Your task to perform on an android device: open app "Walmart Shopping & Grocery" Image 0: 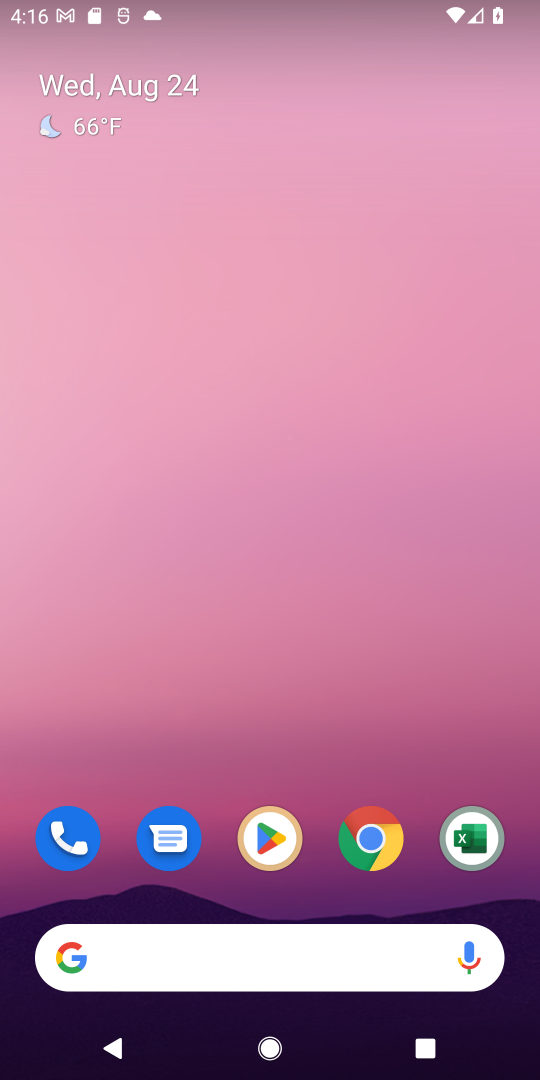
Step 0: press home button
Your task to perform on an android device: open app "Walmart Shopping & Grocery" Image 1: 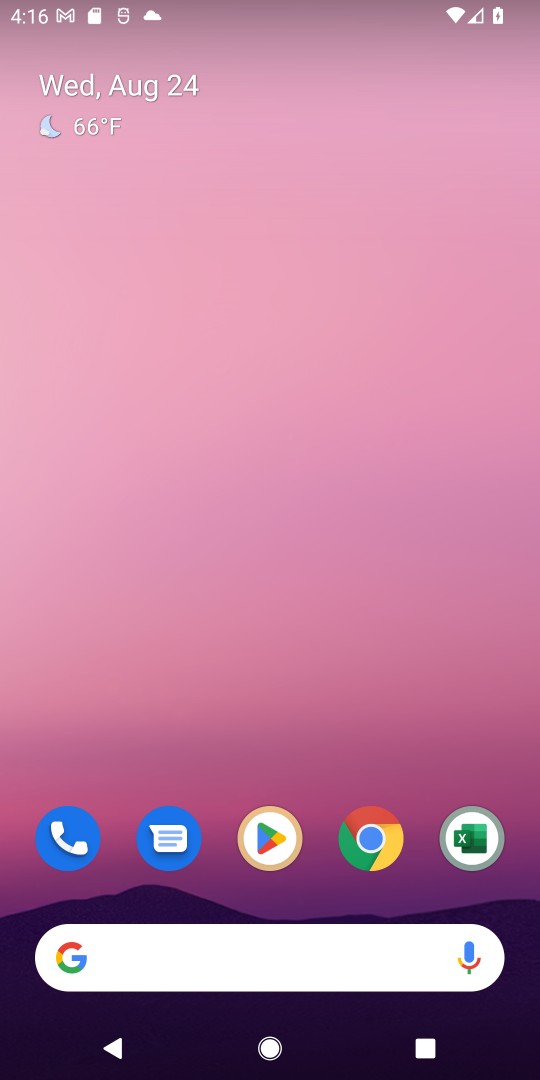
Step 1: click (264, 829)
Your task to perform on an android device: open app "Walmart Shopping & Grocery" Image 2: 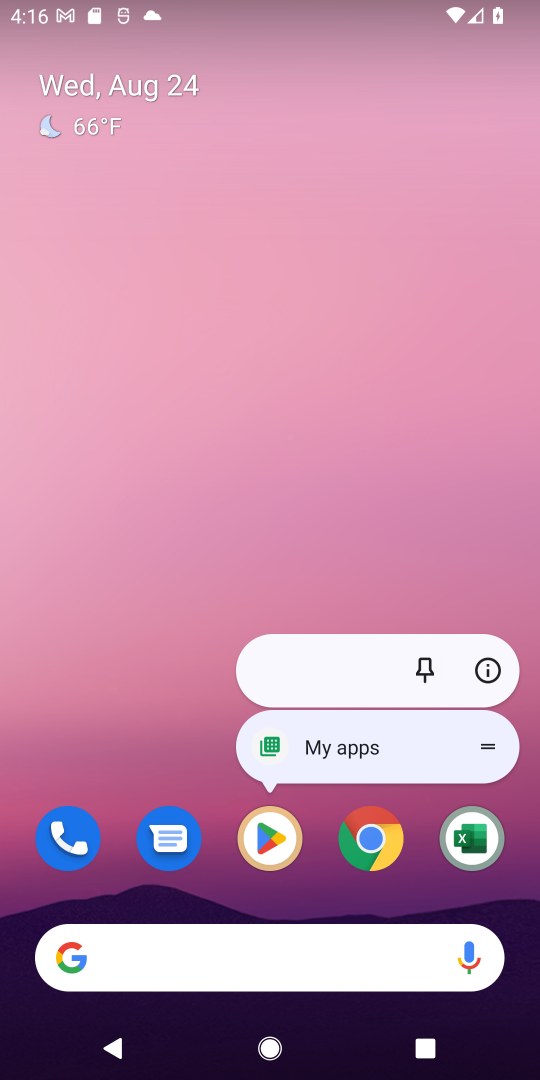
Step 2: click (264, 829)
Your task to perform on an android device: open app "Walmart Shopping & Grocery" Image 3: 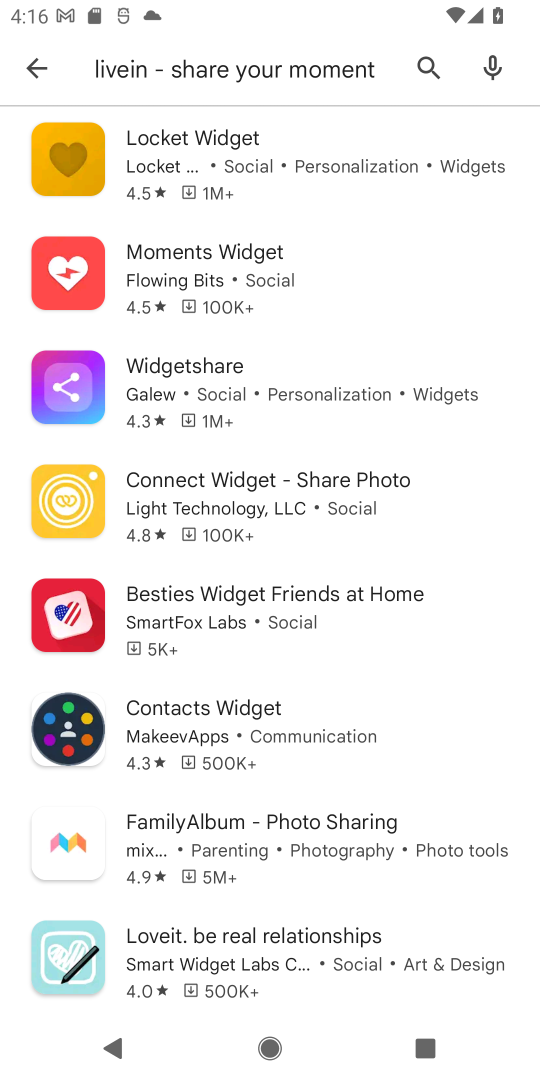
Step 3: click (424, 70)
Your task to perform on an android device: open app "Walmart Shopping & Grocery" Image 4: 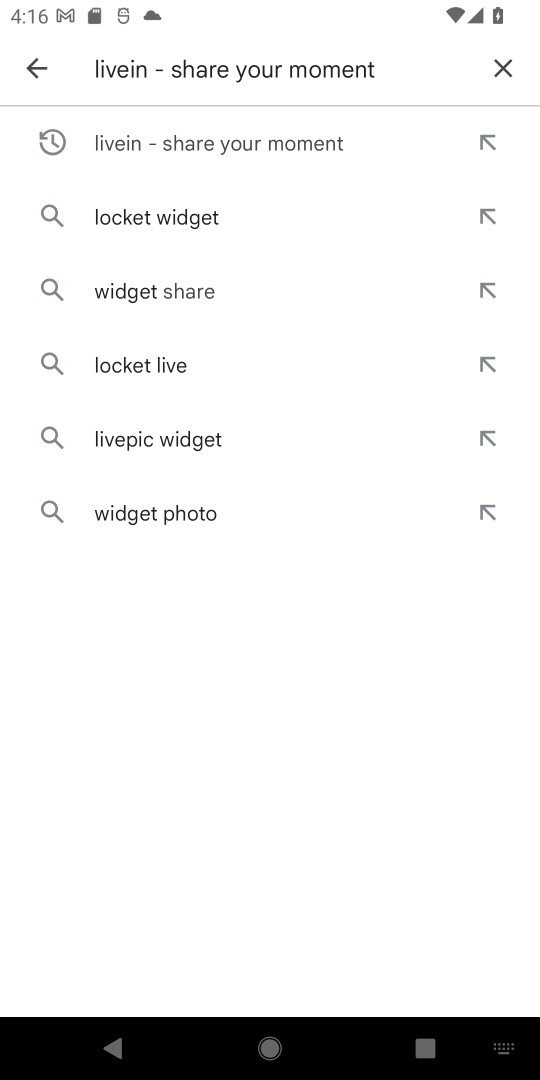
Step 4: click (502, 77)
Your task to perform on an android device: open app "Walmart Shopping & Grocery" Image 5: 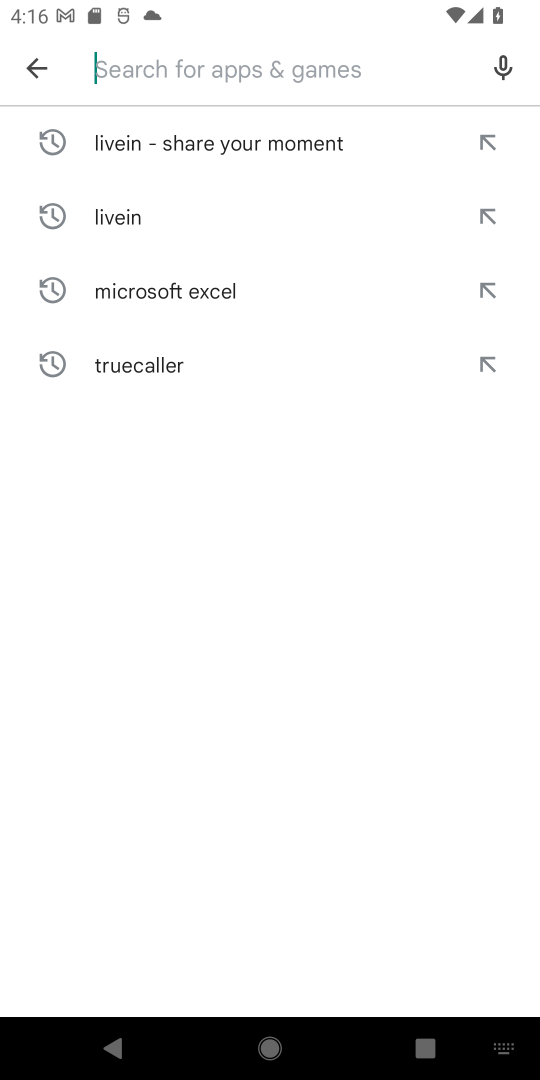
Step 5: type "Walmart Shopping & Grocery"
Your task to perform on an android device: open app "Walmart Shopping & Grocery" Image 6: 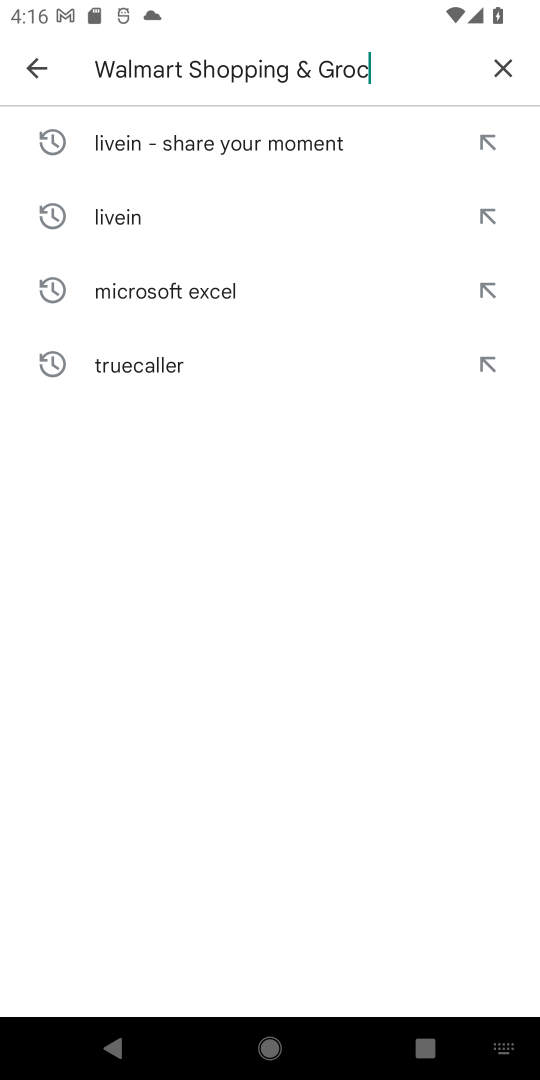
Step 6: type ""
Your task to perform on an android device: open app "Walmart Shopping & Grocery" Image 7: 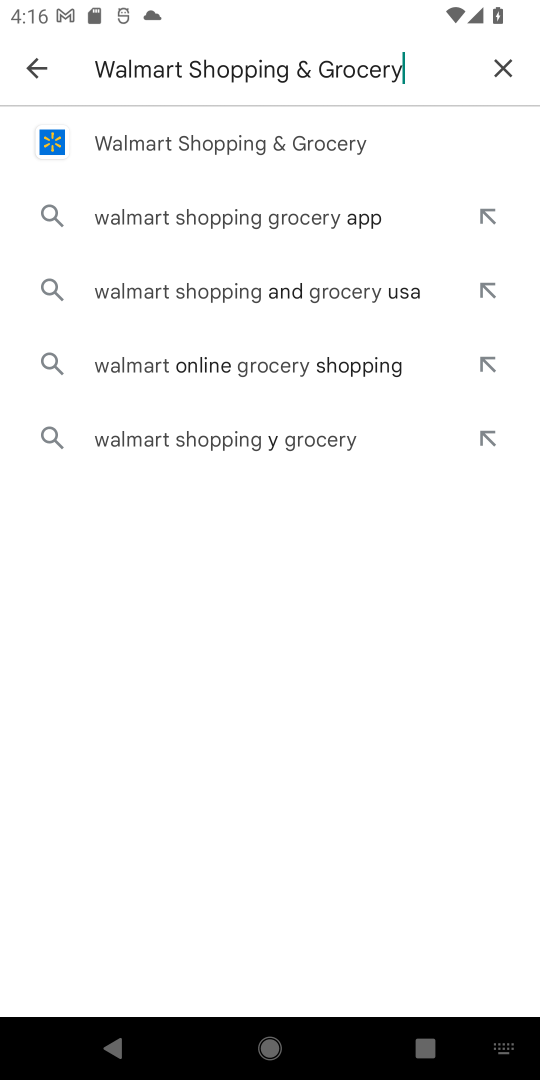
Step 7: click (266, 140)
Your task to perform on an android device: open app "Walmart Shopping & Grocery" Image 8: 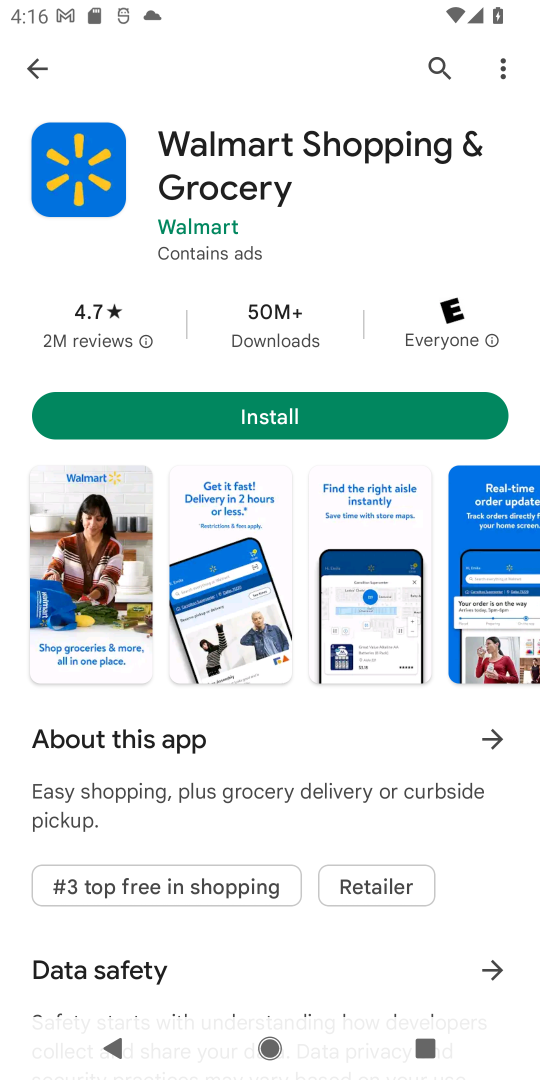
Step 8: task complete